Your task to perform on an android device: Open eBay Image 0: 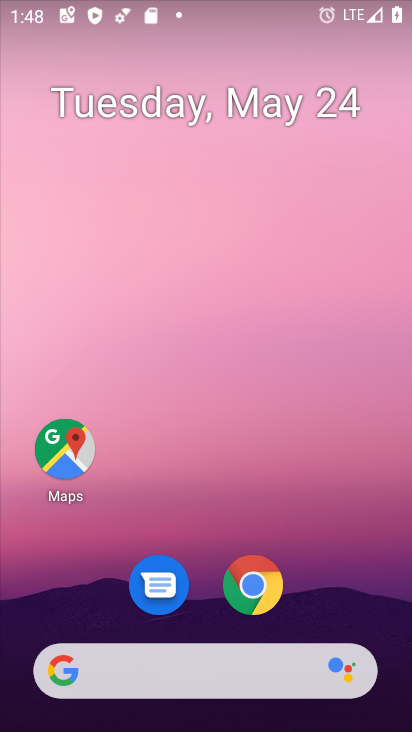
Step 0: click (262, 677)
Your task to perform on an android device: Open eBay Image 1: 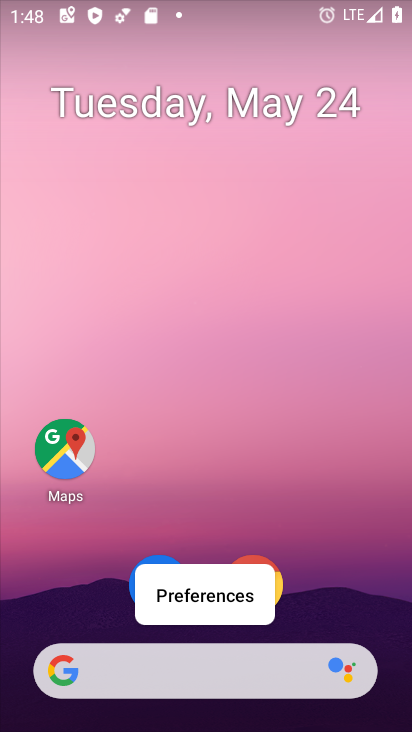
Step 1: click (244, 685)
Your task to perform on an android device: Open eBay Image 2: 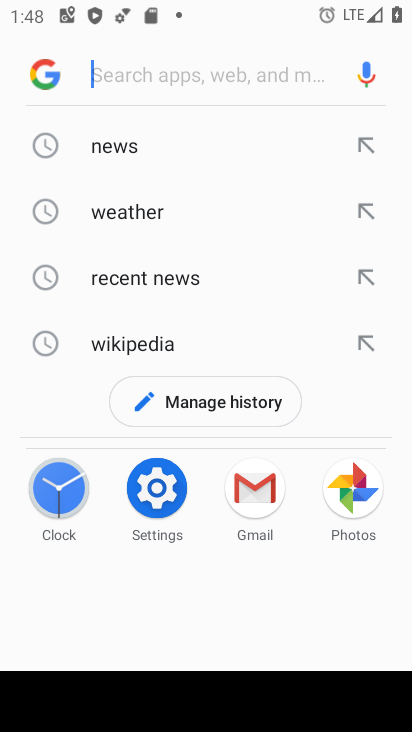
Step 2: type "ebay"
Your task to perform on an android device: Open eBay Image 3: 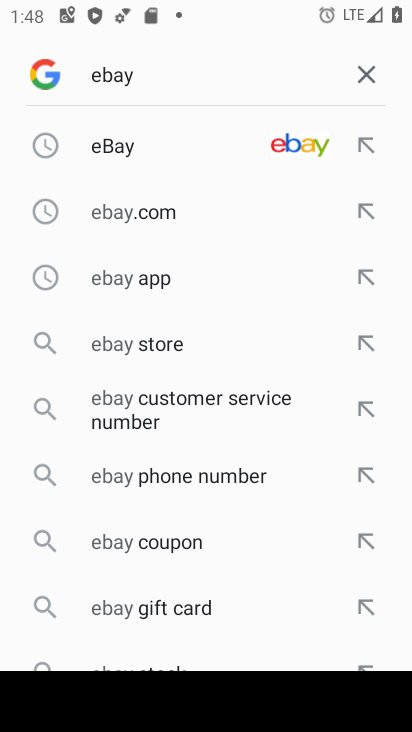
Step 3: click (102, 144)
Your task to perform on an android device: Open eBay Image 4: 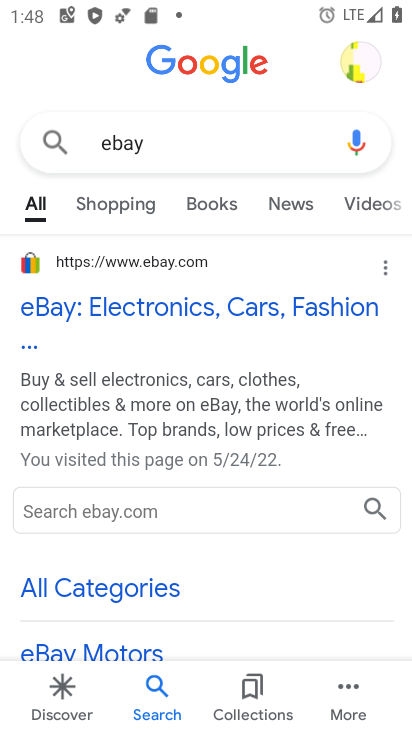
Step 4: click (60, 308)
Your task to perform on an android device: Open eBay Image 5: 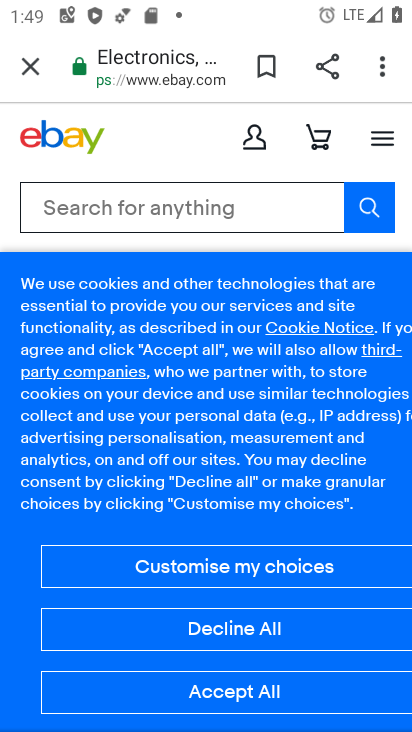
Step 5: task complete